Your task to perform on an android device: Is it going to rain today? Image 0: 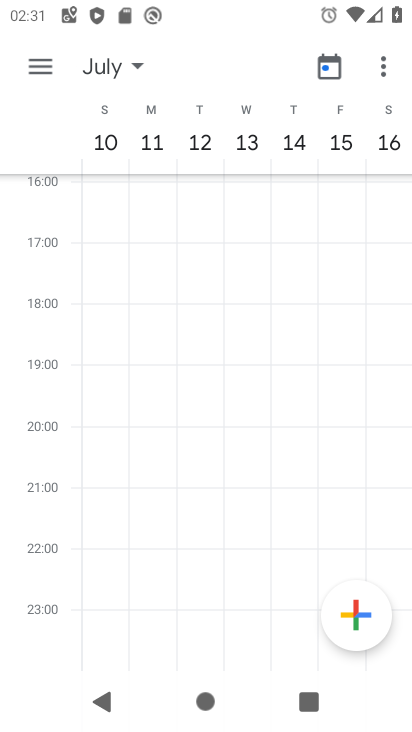
Step 0: press home button
Your task to perform on an android device: Is it going to rain today? Image 1: 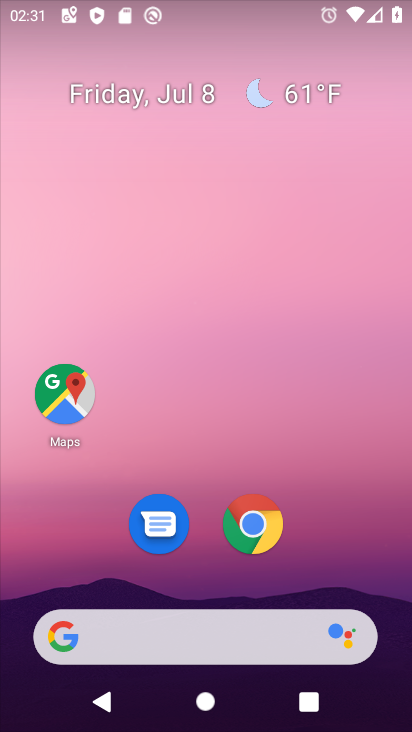
Step 1: click (157, 649)
Your task to perform on an android device: Is it going to rain today? Image 2: 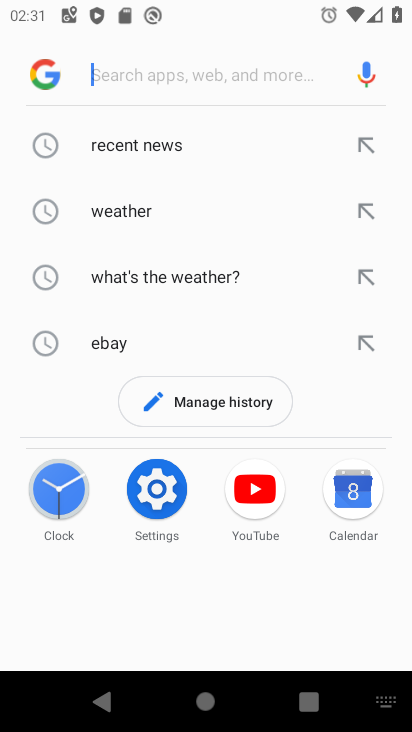
Step 2: click (118, 208)
Your task to perform on an android device: Is it going to rain today? Image 3: 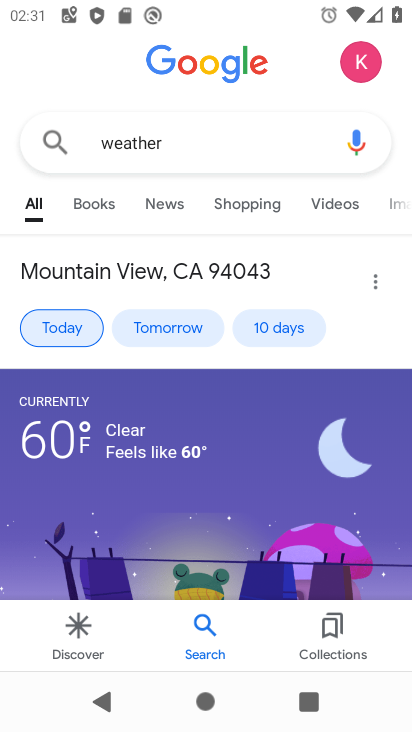
Step 3: click (70, 327)
Your task to perform on an android device: Is it going to rain today? Image 4: 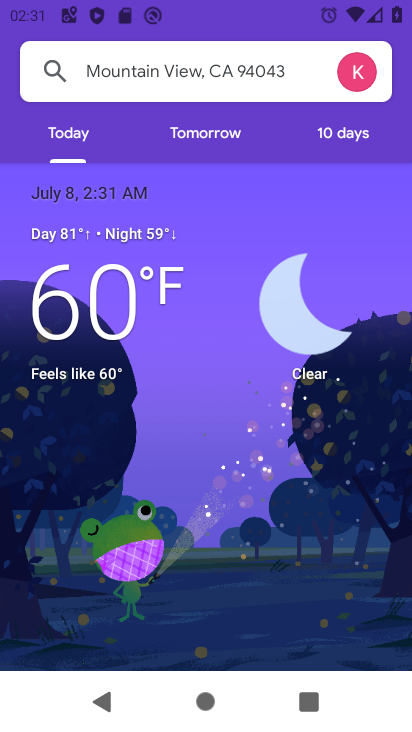
Step 4: task complete